Your task to perform on an android device: Open my contact list Image 0: 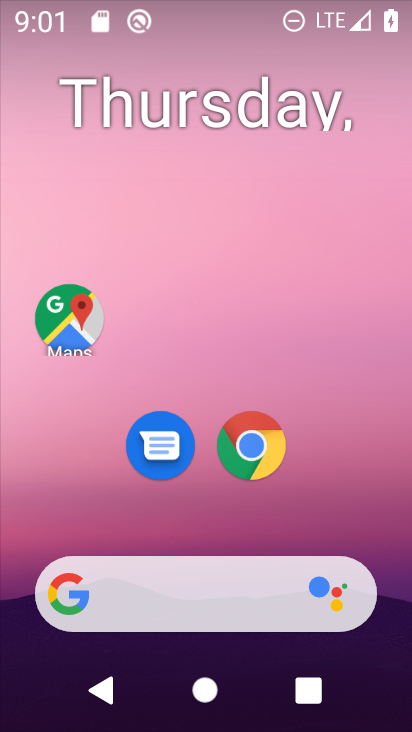
Step 0: drag from (395, 634) to (338, 134)
Your task to perform on an android device: Open my contact list Image 1: 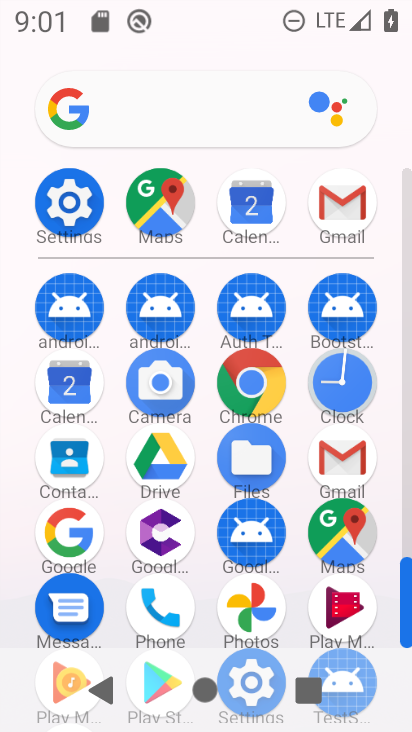
Step 1: click (62, 444)
Your task to perform on an android device: Open my contact list Image 2: 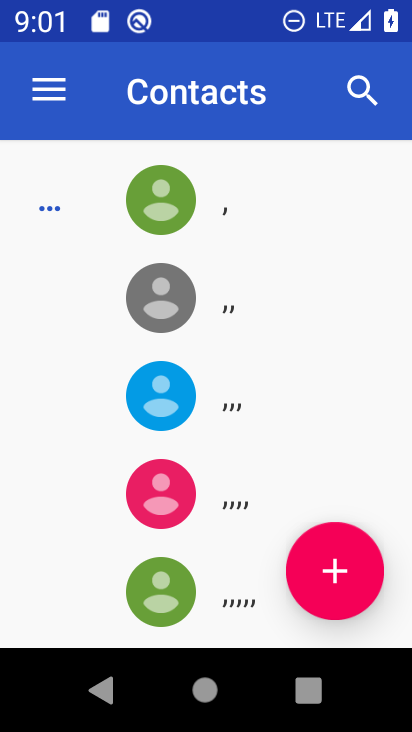
Step 2: task complete